Your task to perform on an android device: Open sound settings Image 0: 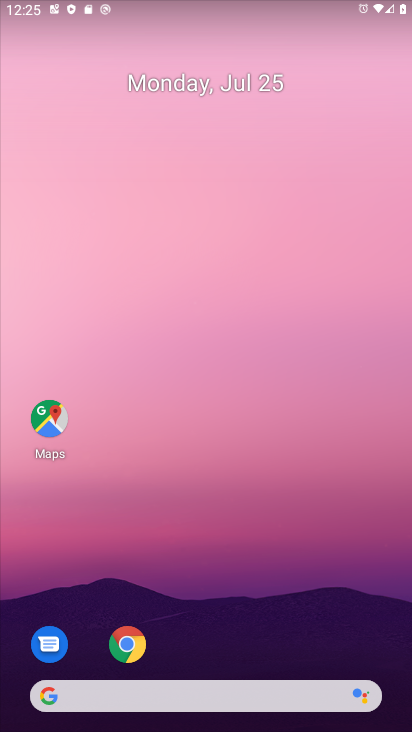
Step 0: drag from (356, 662) to (107, 10)
Your task to perform on an android device: Open sound settings Image 1: 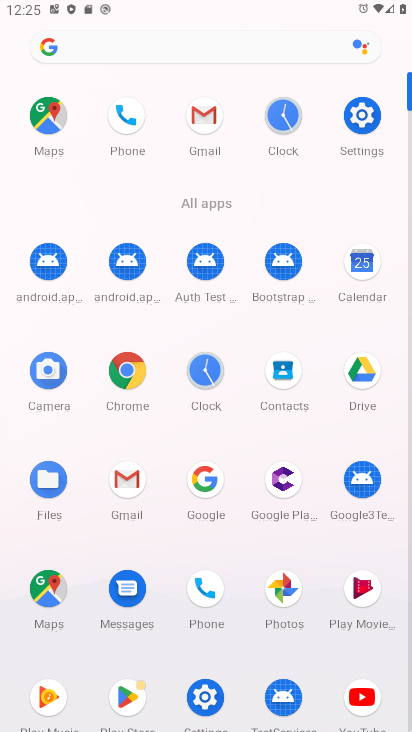
Step 1: click (219, 699)
Your task to perform on an android device: Open sound settings Image 2: 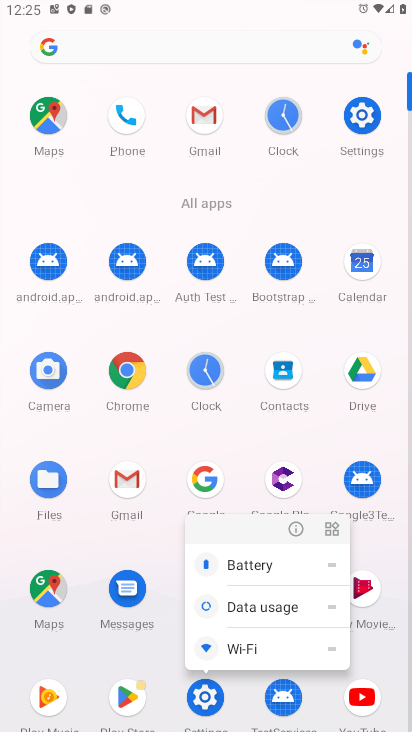
Step 2: click (209, 689)
Your task to perform on an android device: Open sound settings Image 3: 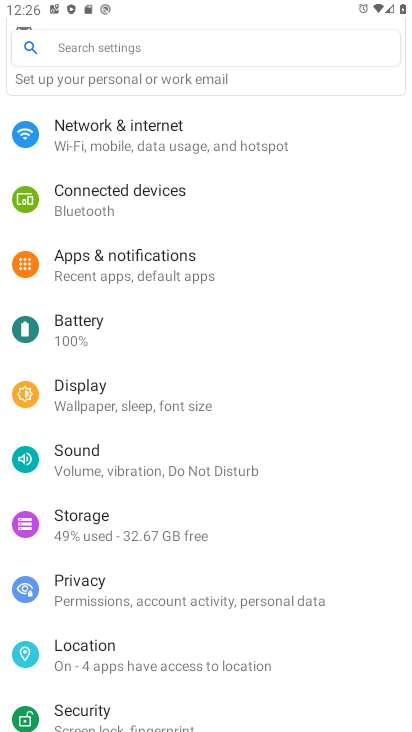
Step 3: click (115, 472)
Your task to perform on an android device: Open sound settings Image 4: 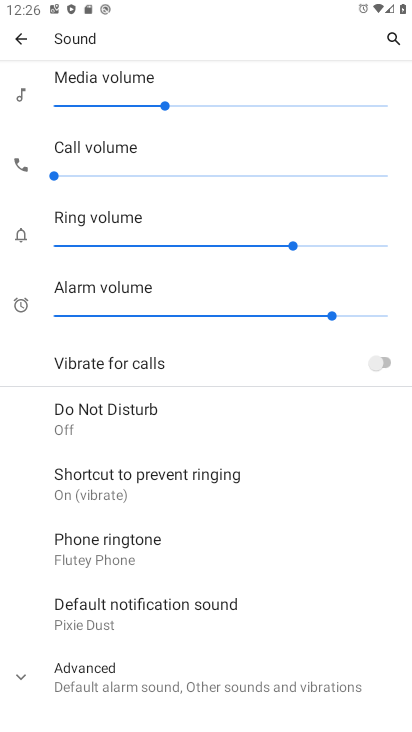
Step 4: task complete